Your task to perform on an android device: Show me the alarms in the clock app Image 0: 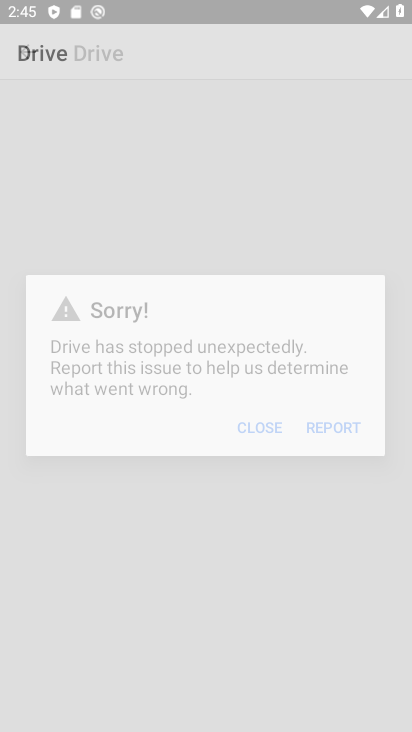
Step 0: press home button
Your task to perform on an android device: Show me the alarms in the clock app Image 1: 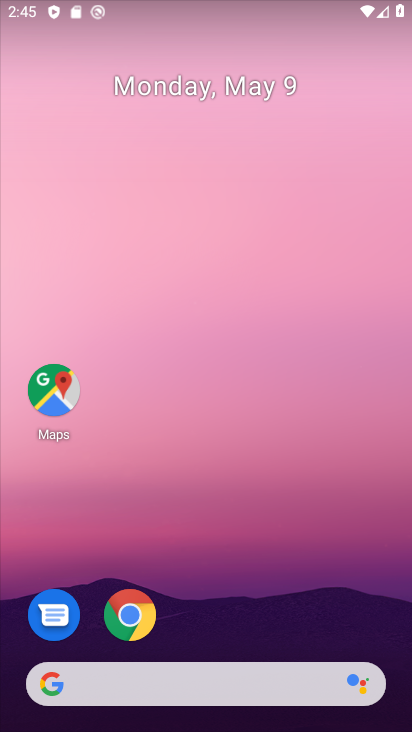
Step 1: drag from (253, 552) to (232, 249)
Your task to perform on an android device: Show me the alarms in the clock app Image 2: 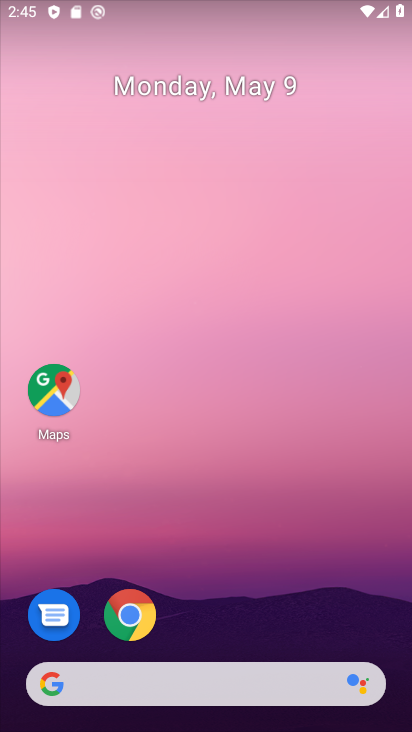
Step 2: drag from (229, 620) to (211, 176)
Your task to perform on an android device: Show me the alarms in the clock app Image 3: 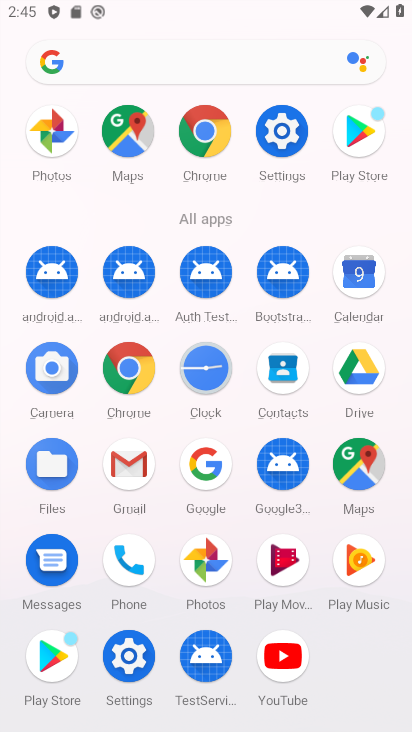
Step 3: click (278, 119)
Your task to perform on an android device: Show me the alarms in the clock app Image 4: 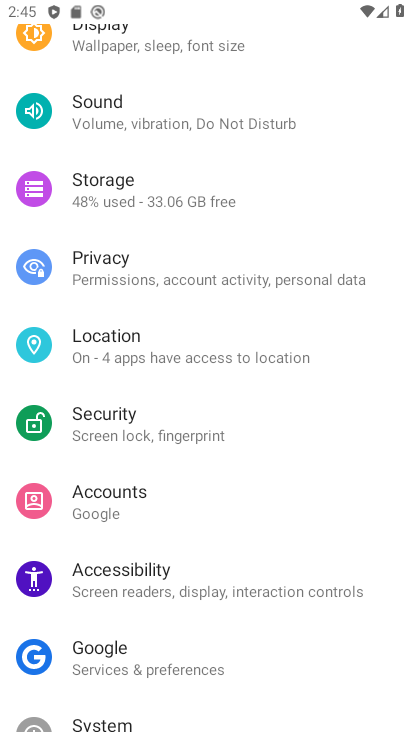
Step 4: drag from (163, 200) to (165, 695)
Your task to perform on an android device: Show me the alarms in the clock app Image 5: 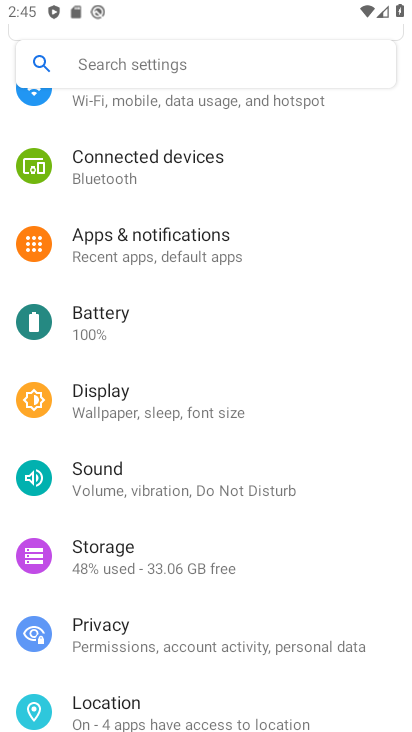
Step 5: click (162, 237)
Your task to perform on an android device: Show me the alarms in the clock app Image 6: 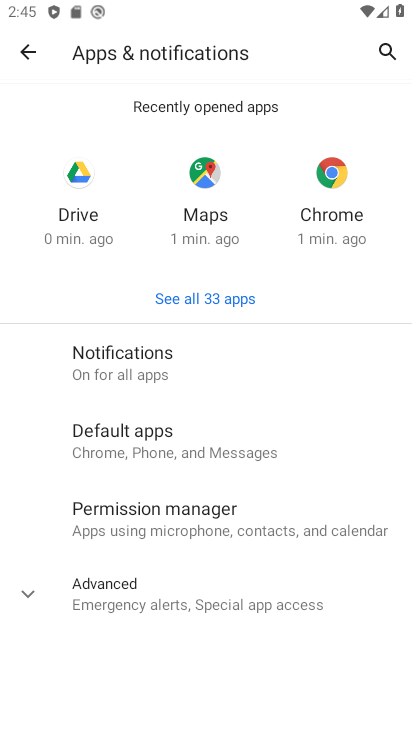
Step 6: click (125, 365)
Your task to perform on an android device: Show me the alarms in the clock app Image 7: 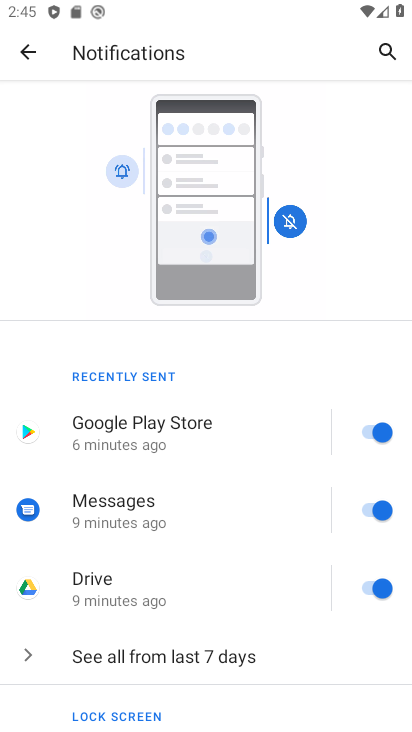
Step 7: drag from (103, 667) to (133, 187)
Your task to perform on an android device: Show me the alarms in the clock app Image 8: 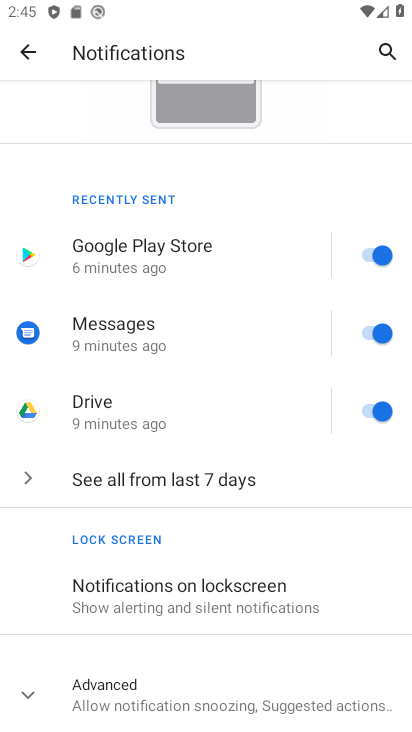
Step 8: click (137, 604)
Your task to perform on an android device: Show me the alarms in the clock app Image 9: 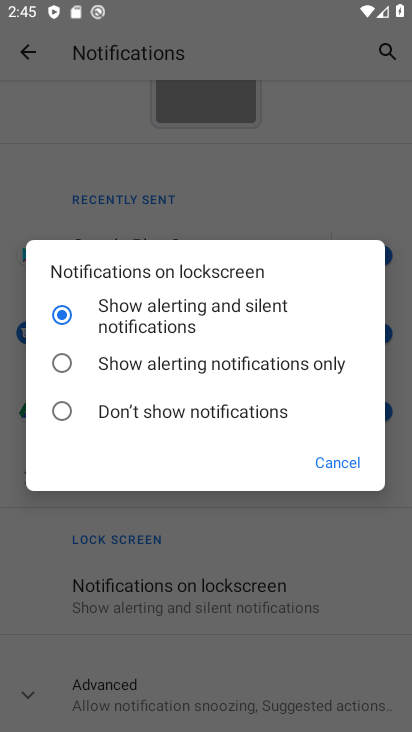
Step 9: press home button
Your task to perform on an android device: Show me the alarms in the clock app Image 10: 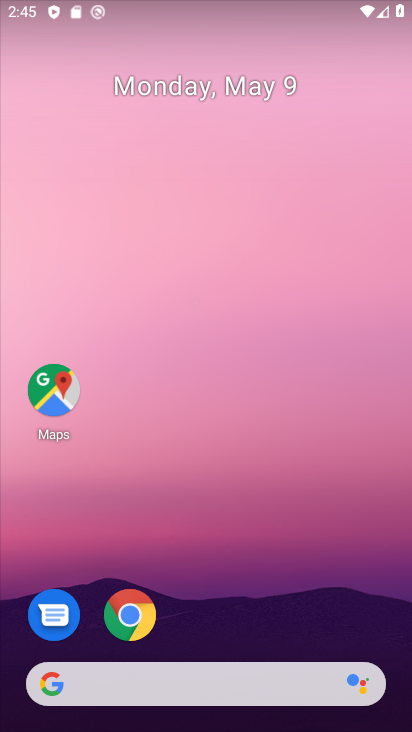
Step 10: drag from (236, 485) to (209, 124)
Your task to perform on an android device: Show me the alarms in the clock app Image 11: 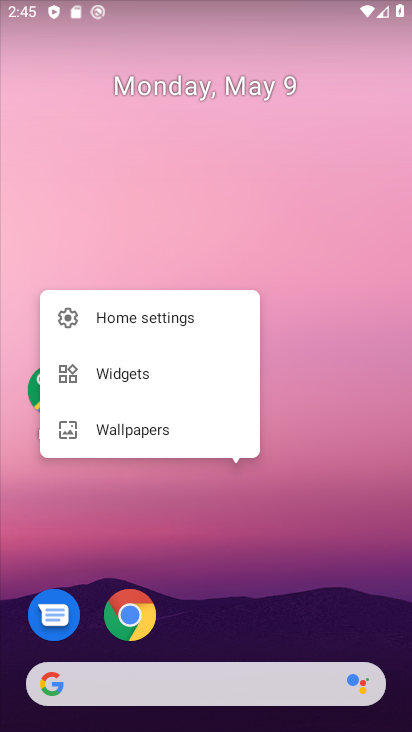
Step 11: click (253, 534)
Your task to perform on an android device: Show me the alarms in the clock app Image 12: 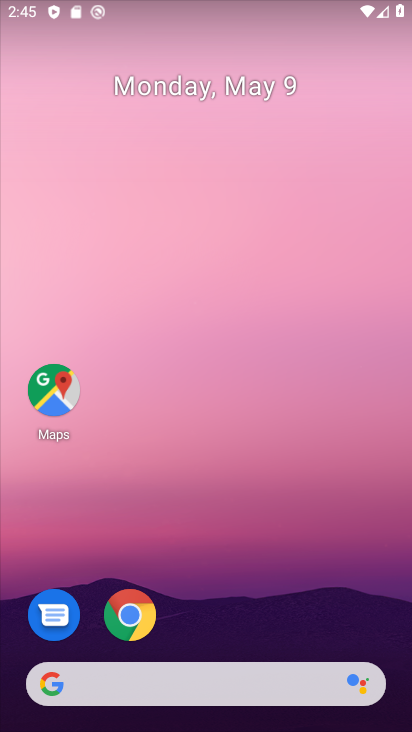
Step 12: drag from (280, 567) to (290, 244)
Your task to perform on an android device: Show me the alarms in the clock app Image 13: 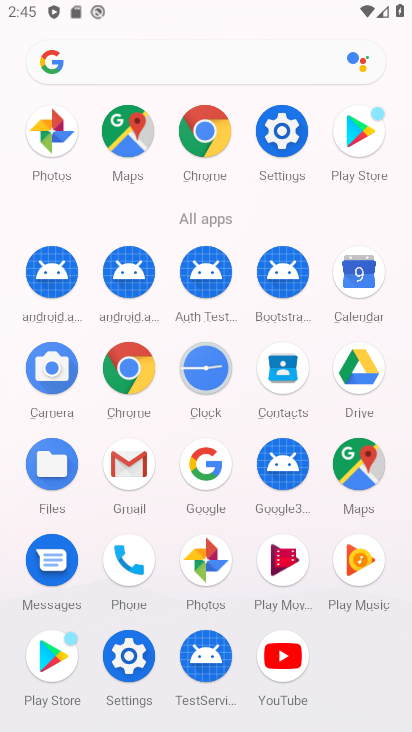
Step 13: click (203, 378)
Your task to perform on an android device: Show me the alarms in the clock app Image 14: 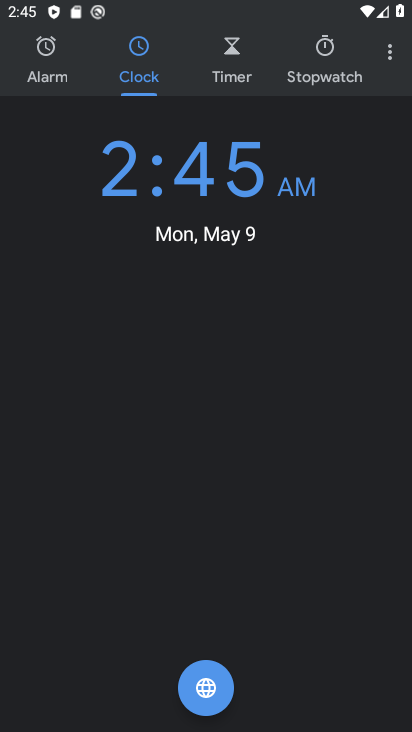
Step 14: click (52, 57)
Your task to perform on an android device: Show me the alarms in the clock app Image 15: 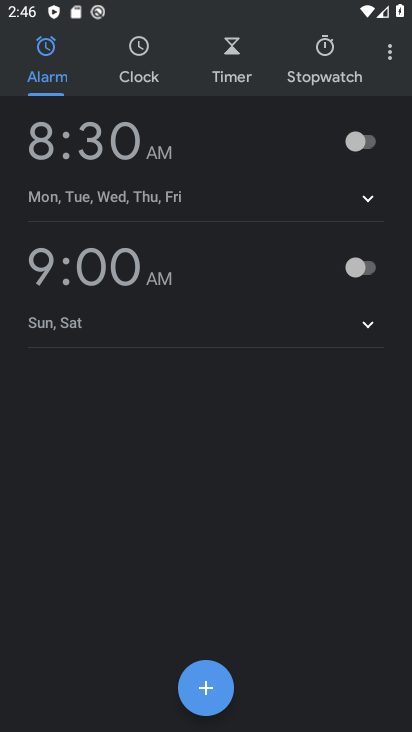
Step 15: task complete